Your task to perform on an android device: toggle improve location accuracy Image 0: 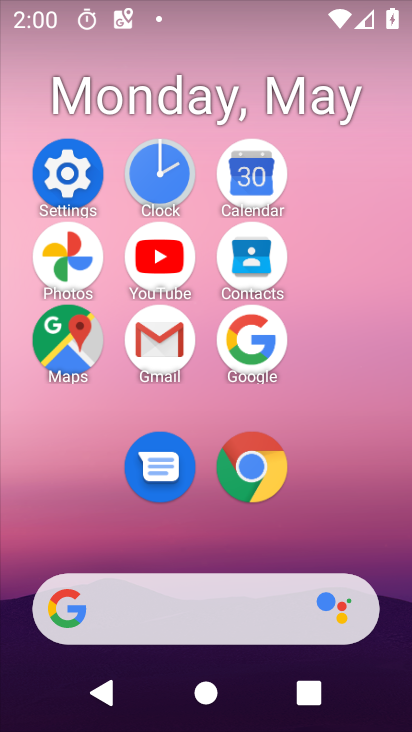
Step 0: click (82, 183)
Your task to perform on an android device: toggle improve location accuracy Image 1: 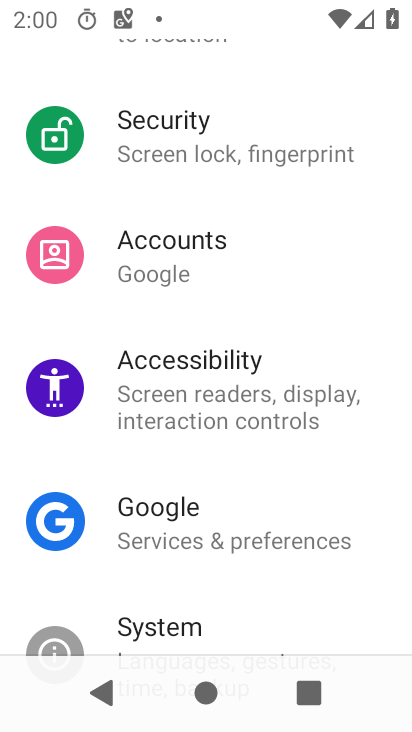
Step 1: drag from (244, 574) to (217, 204)
Your task to perform on an android device: toggle improve location accuracy Image 2: 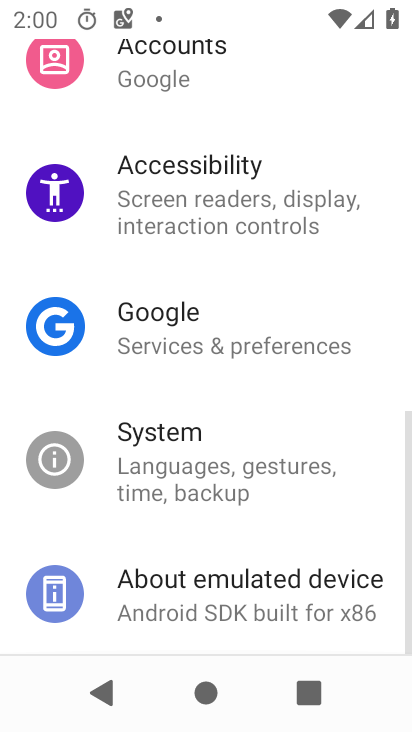
Step 2: drag from (285, 184) to (320, 644)
Your task to perform on an android device: toggle improve location accuracy Image 3: 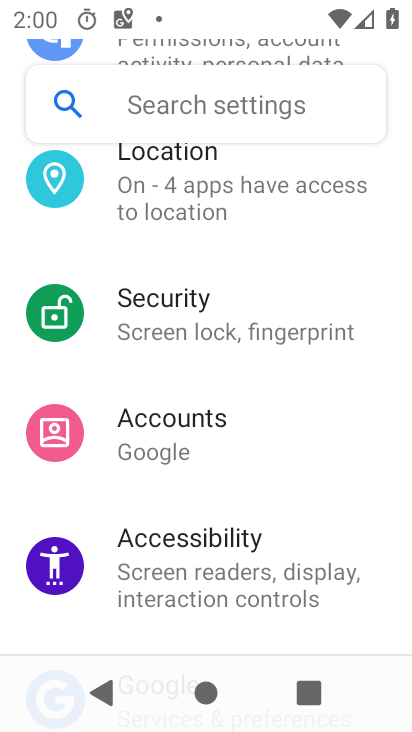
Step 3: click (280, 203)
Your task to perform on an android device: toggle improve location accuracy Image 4: 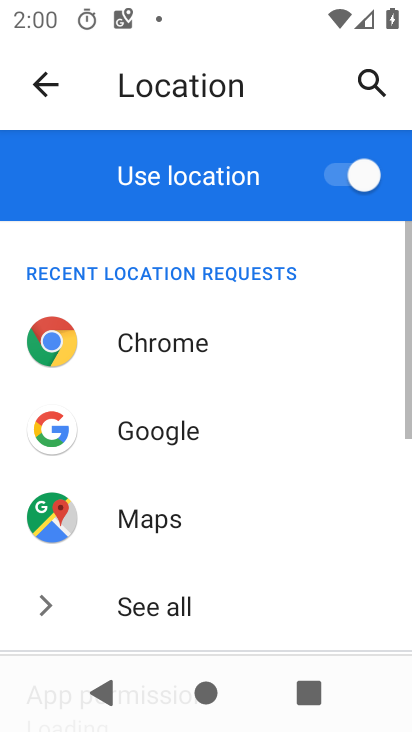
Step 4: drag from (245, 562) to (230, 222)
Your task to perform on an android device: toggle improve location accuracy Image 5: 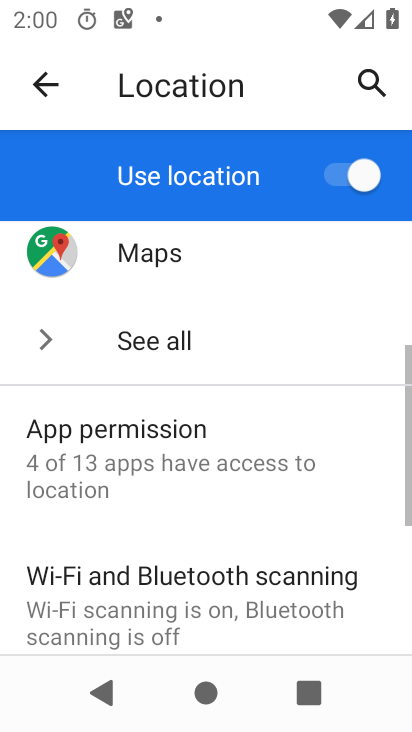
Step 5: drag from (230, 464) to (253, 254)
Your task to perform on an android device: toggle improve location accuracy Image 6: 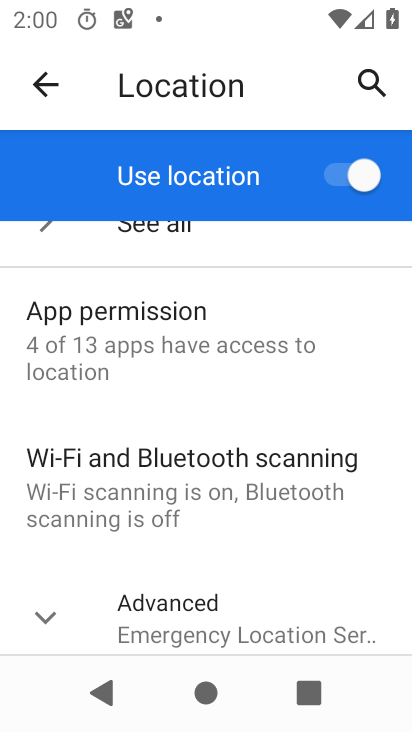
Step 6: click (232, 595)
Your task to perform on an android device: toggle improve location accuracy Image 7: 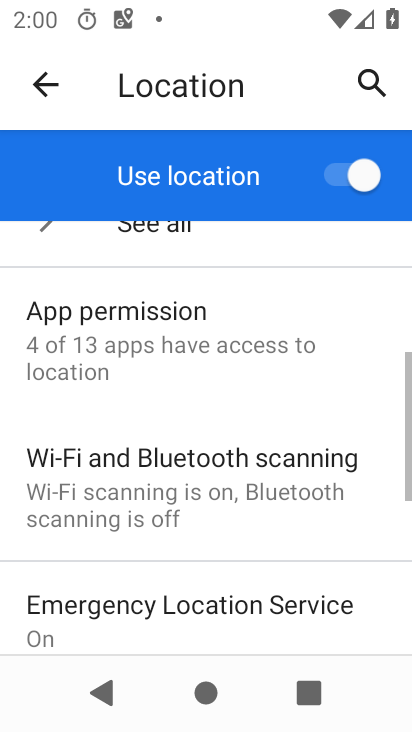
Step 7: drag from (232, 595) to (201, 254)
Your task to perform on an android device: toggle improve location accuracy Image 8: 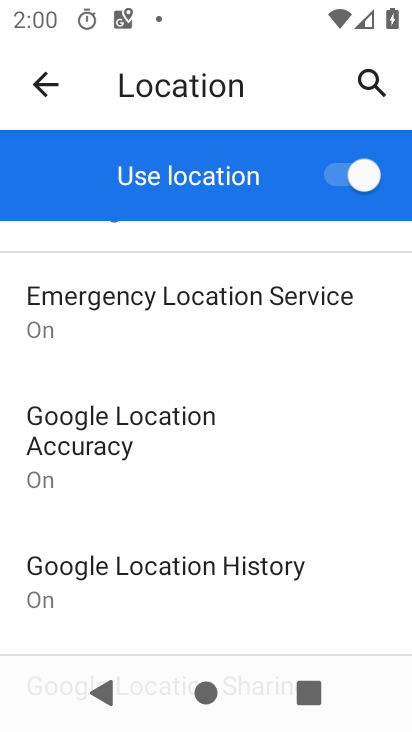
Step 8: drag from (266, 556) to (260, 295)
Your task to perform on an android device: toggle improve location accuracy Image 9: 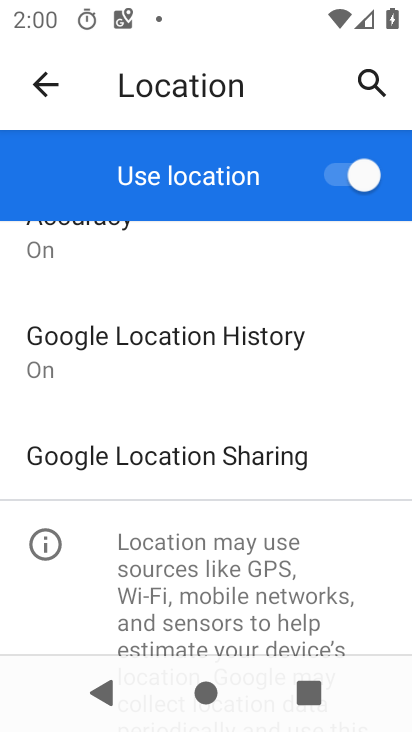
Step 9: drag from (321, 298) to (320, 574)
Your task to perform on an android device: toggle improve location accuracy Image 10: 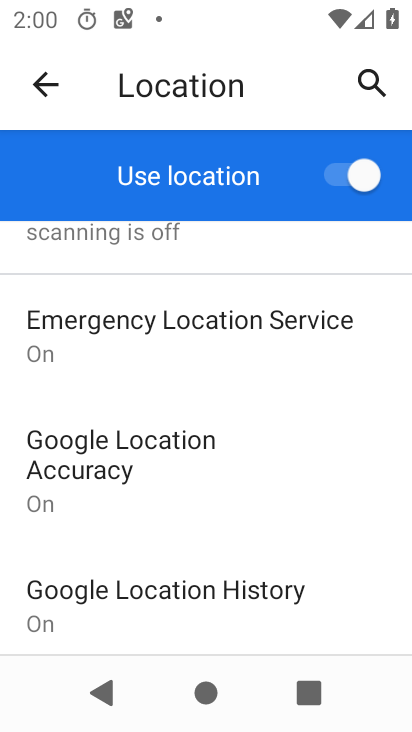
Step 10: click (122, 479)
Your task to perform on an android device: toggle improve location accuracy Image 11: 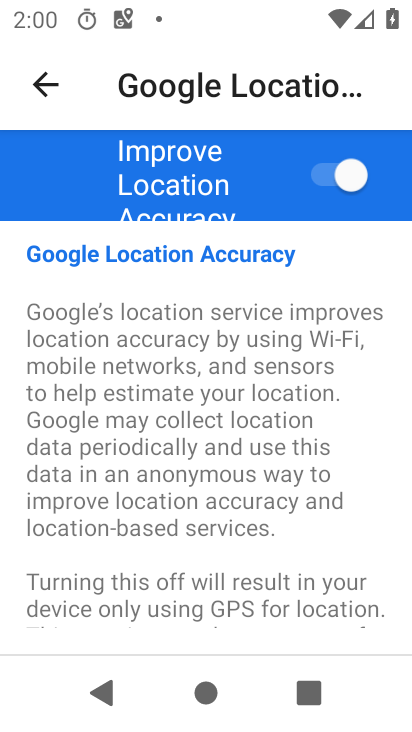
Step 11: click (355, 166)
Your task to perform on an android device: toggle improve location accuracy Image 12: 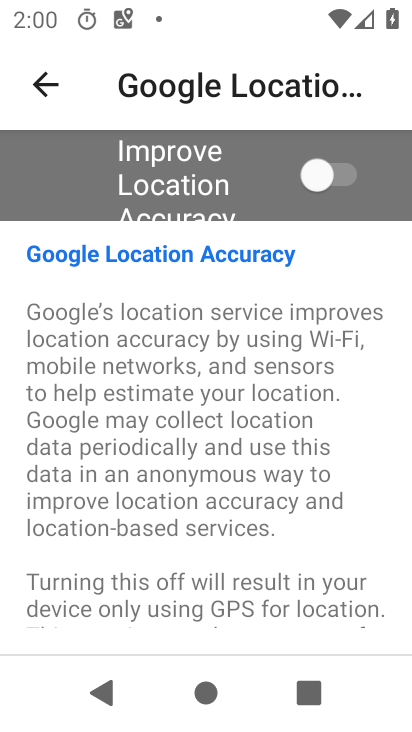
Step 12: task complete